Your task to perform on an android device: change the clock display to show seconds Image 0: 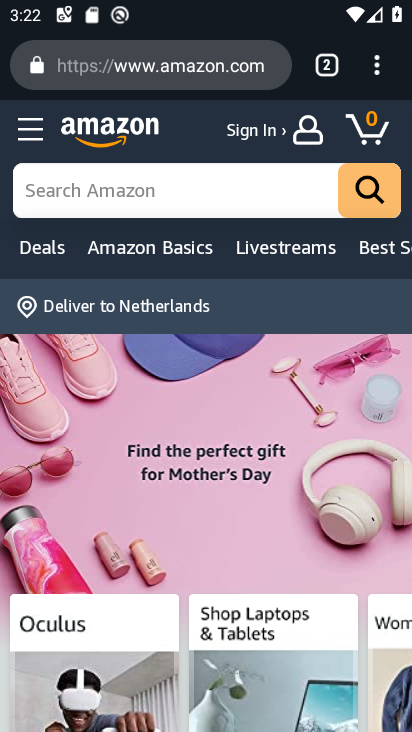
Step 0: press home button
Your task to perform on an android device: change the clock display to show seconds Image 1: 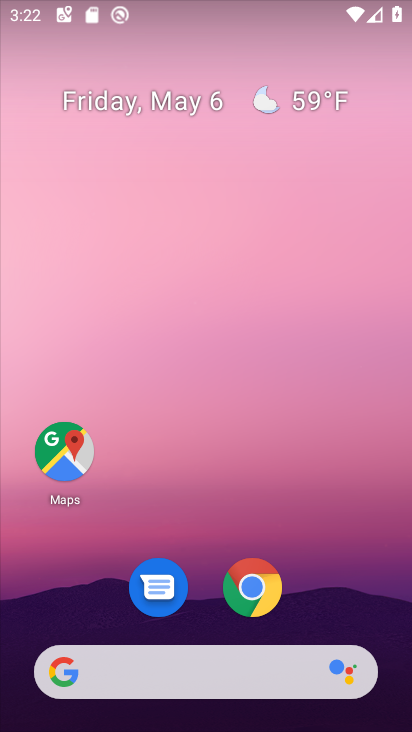
Step 1: drag from (178, 474) to (148, 61)
Your task to perform on an android device: change the clock display to show seconds Image 2: 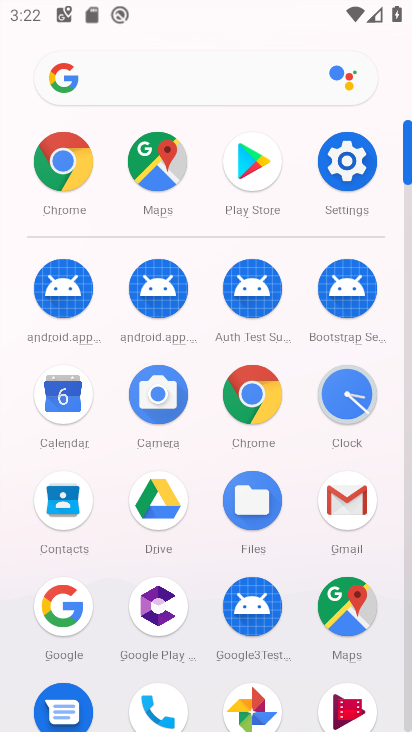
Step 2: click (368, 384)
Your task to perform on an android device: change the clock display to show seconds Image 3: 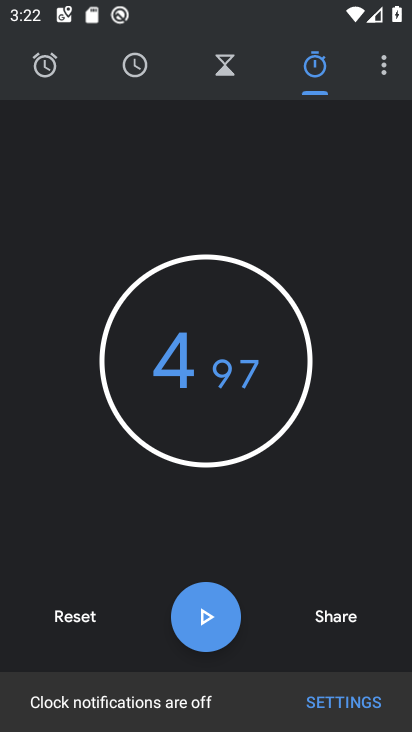
Step 3: click (386, 71)
Your task to perform on an android device: change the clock display to show seconds Image 4: 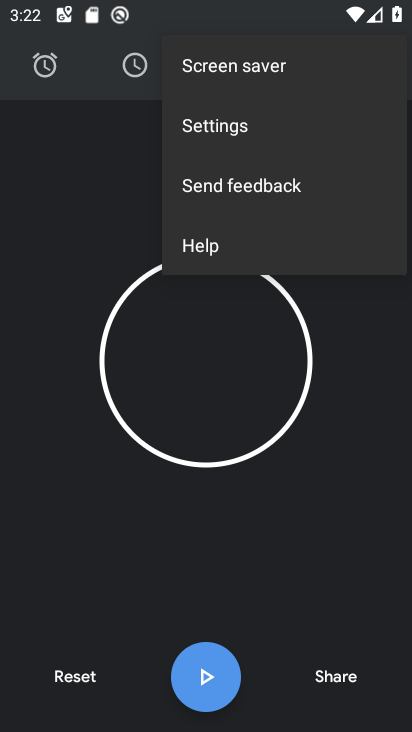
Step 4: click (313, 121)
Your task to perform on an android device: change the clock display to show seconds Image 5: 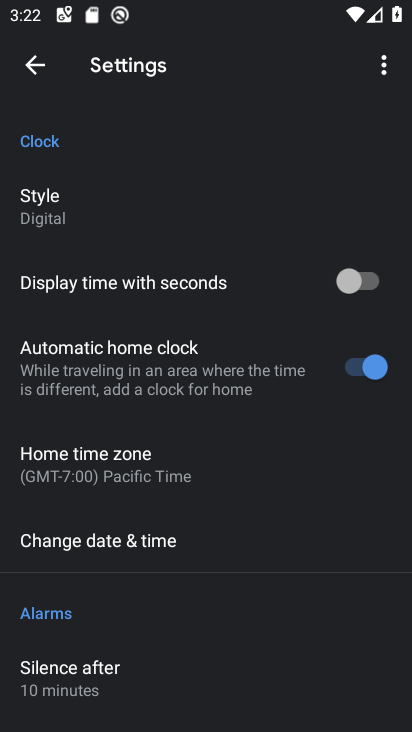
Step 5: click (361, 283)
Your task to perform on an android device: change the clock display to show seconds Image 6: 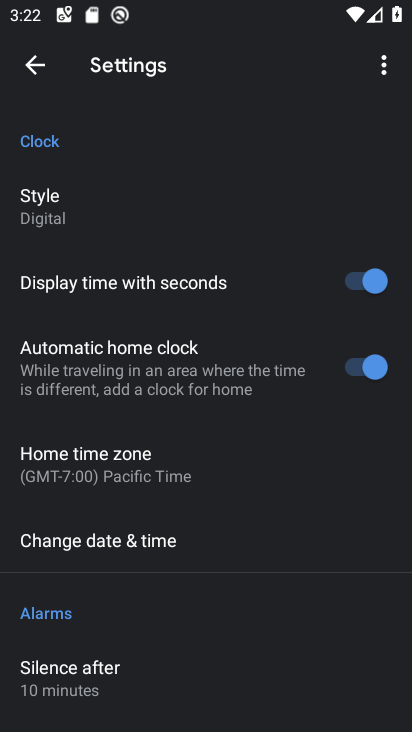
Step 6: click (39, 73)
Your task to perform on an android device: change the clock display to show seconds Image 7: 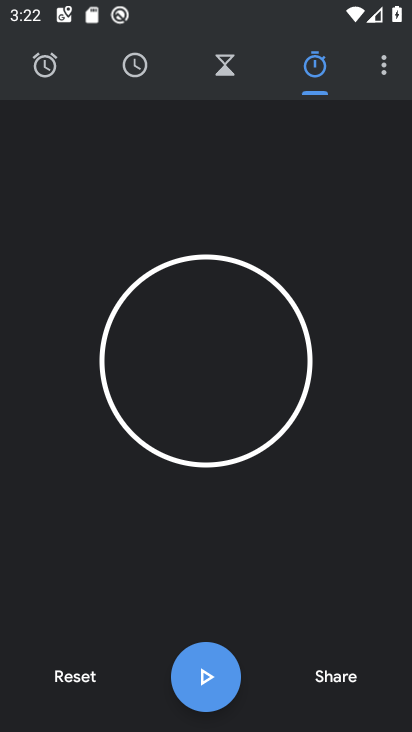
Step 7: click (138, 64)
Your task to perform on an android device: change the clock display to show seconds Image 8: 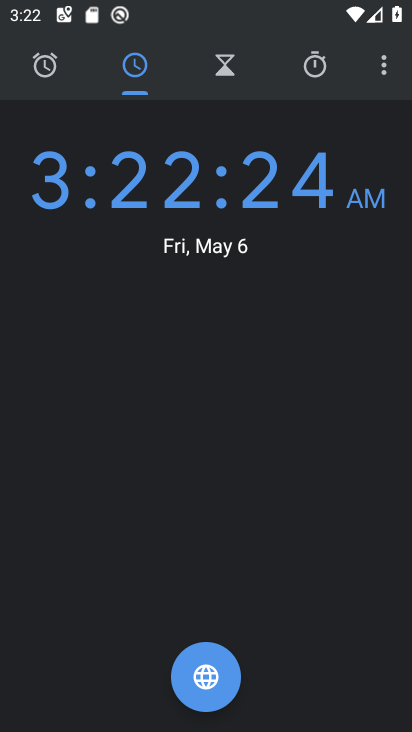
Step 8: task complete